Your task to perform on an android device: Show me recent news Image 0: 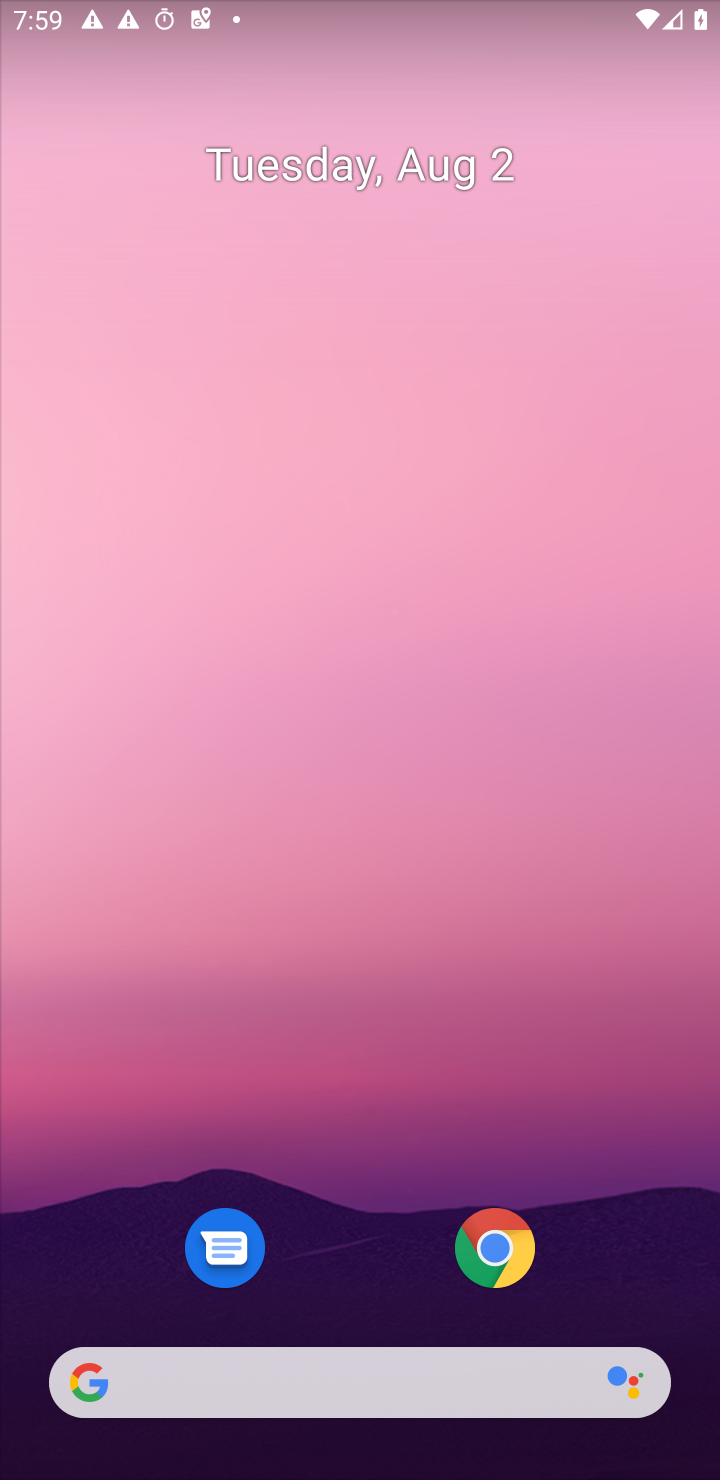
Step 0: drag from (177, 1236) to (242, 482)
Your task to perform on an android device: Show me recent news Image 1: 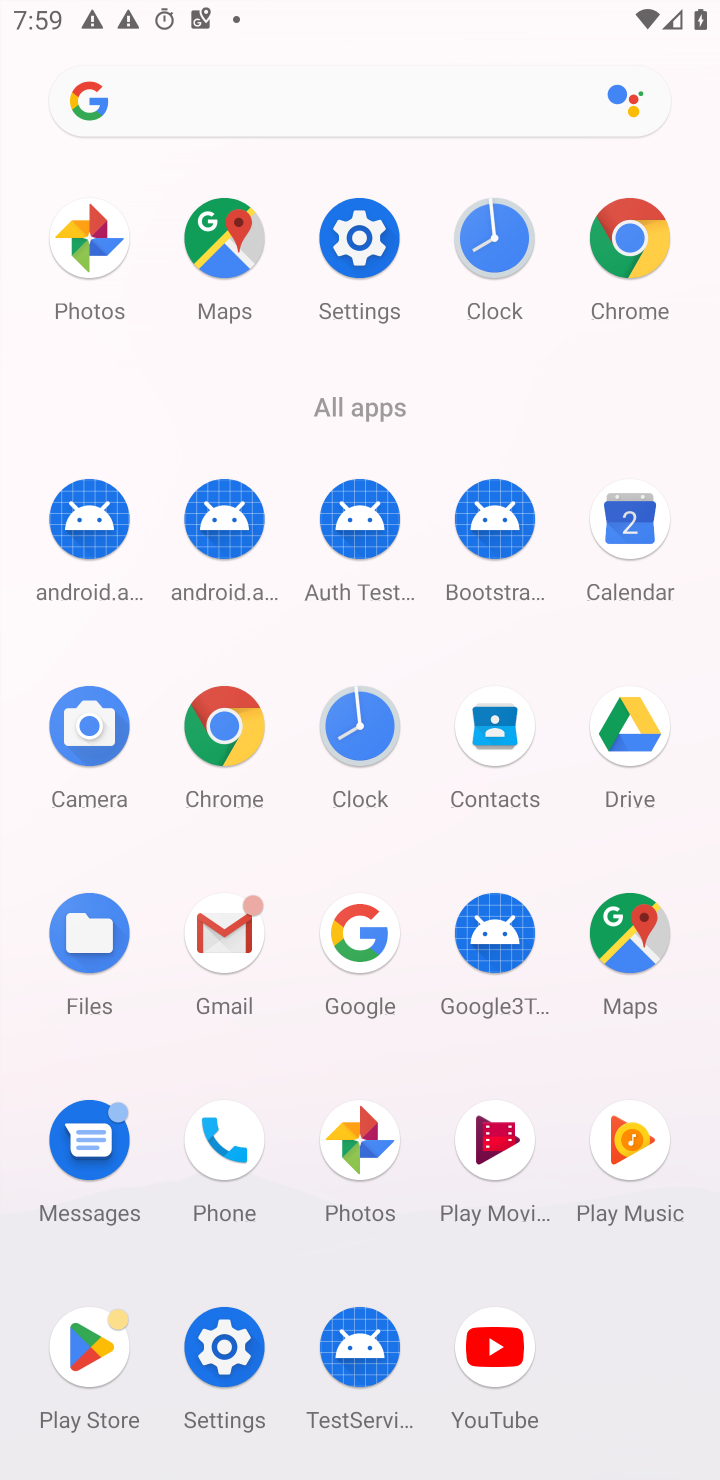
Step 1: drag from (279, 1288) to (317, 431)
Your task to perform on an android device: Show me recent news Image 2: 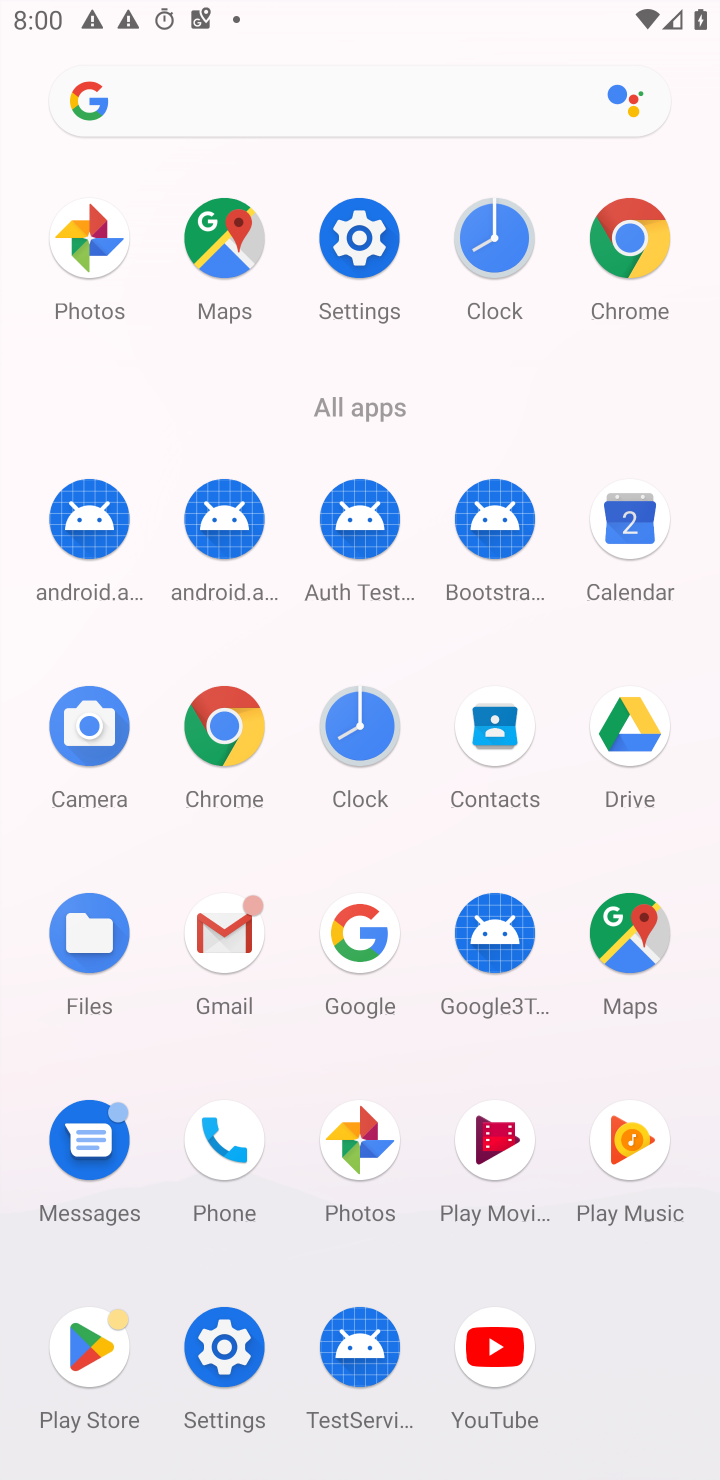
Step 2: click (197, 105)
Your task to perform on an android device: Show me recent news Image 3: 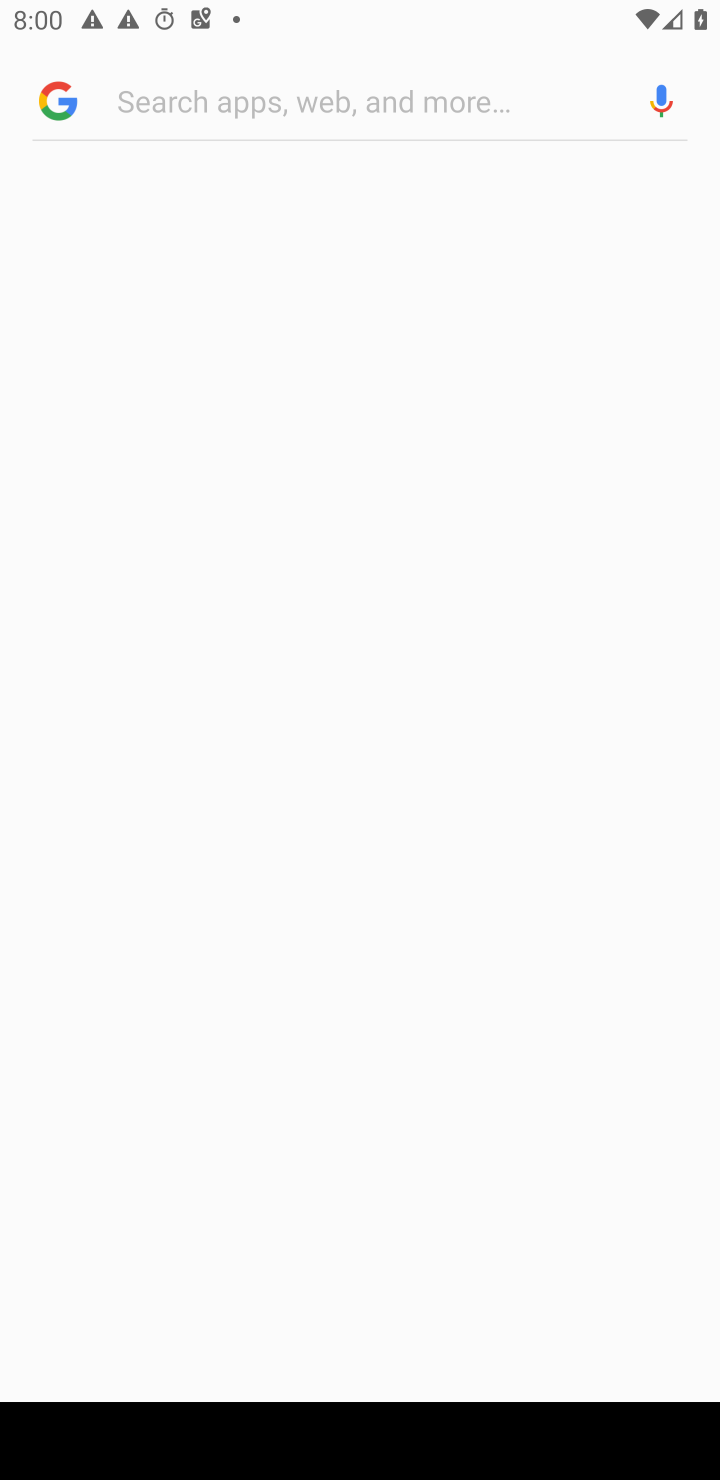
Step 3: type "recent news"
Your task to perform on an android device: Show me recent news Image 4: 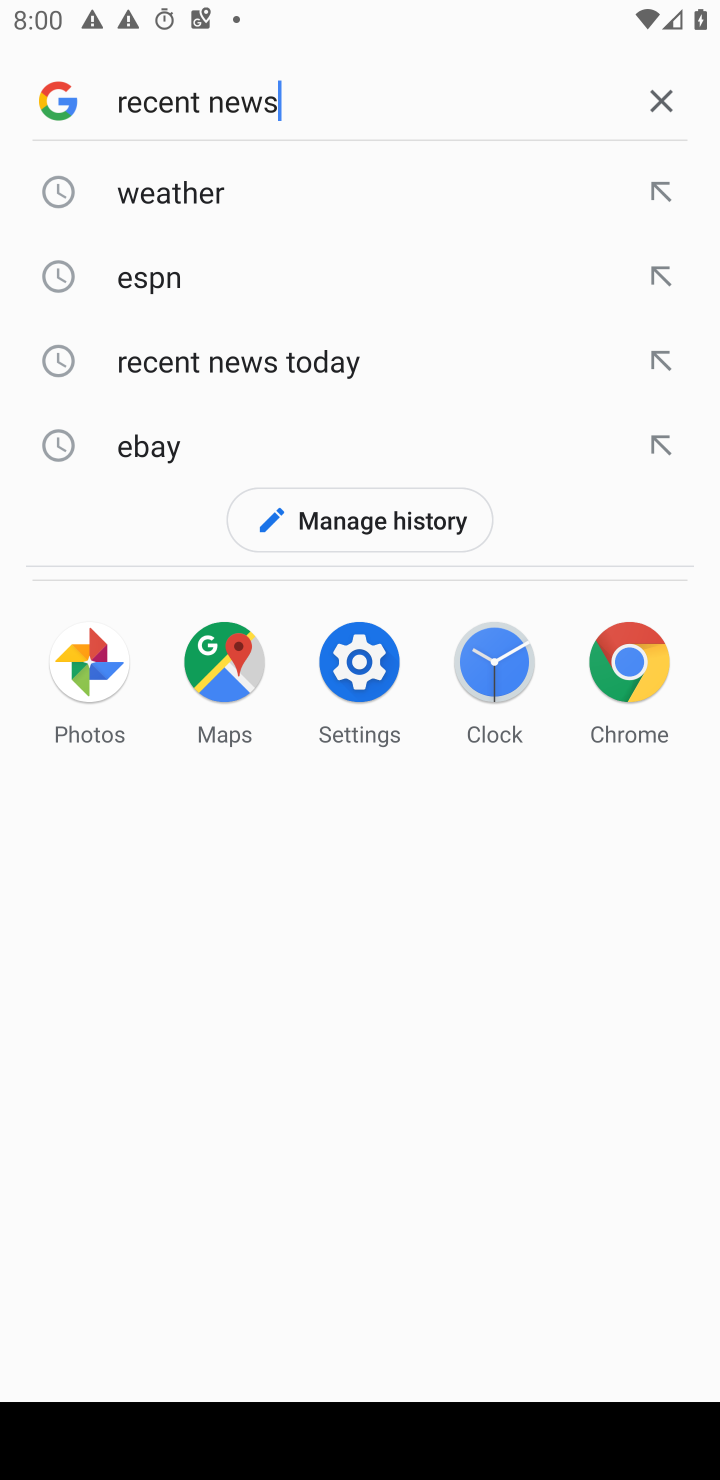
Step 4: type ""
Your task to perform on an android device: Show me recent news Image 5: 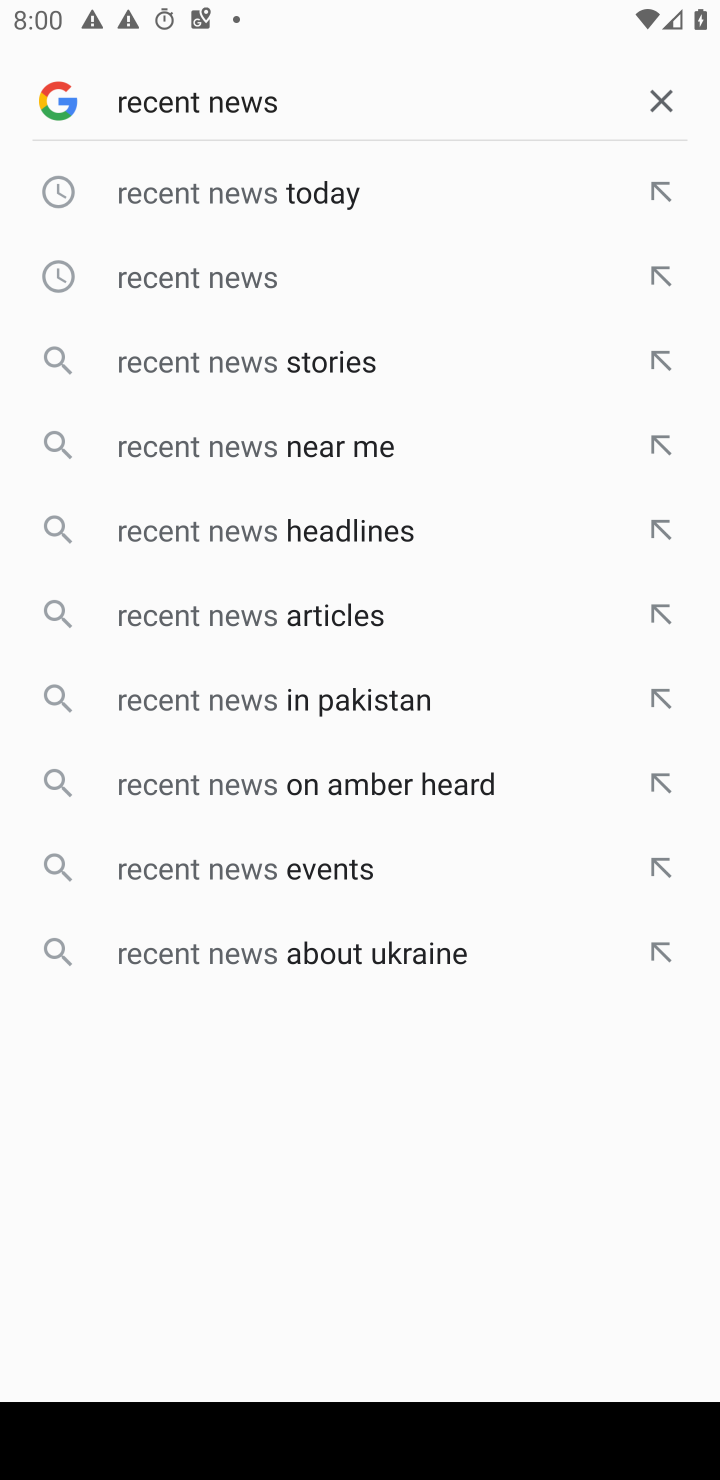
Step 5: click (118, 279)
Your task to perform on an android device: Show me recent news Image 6: 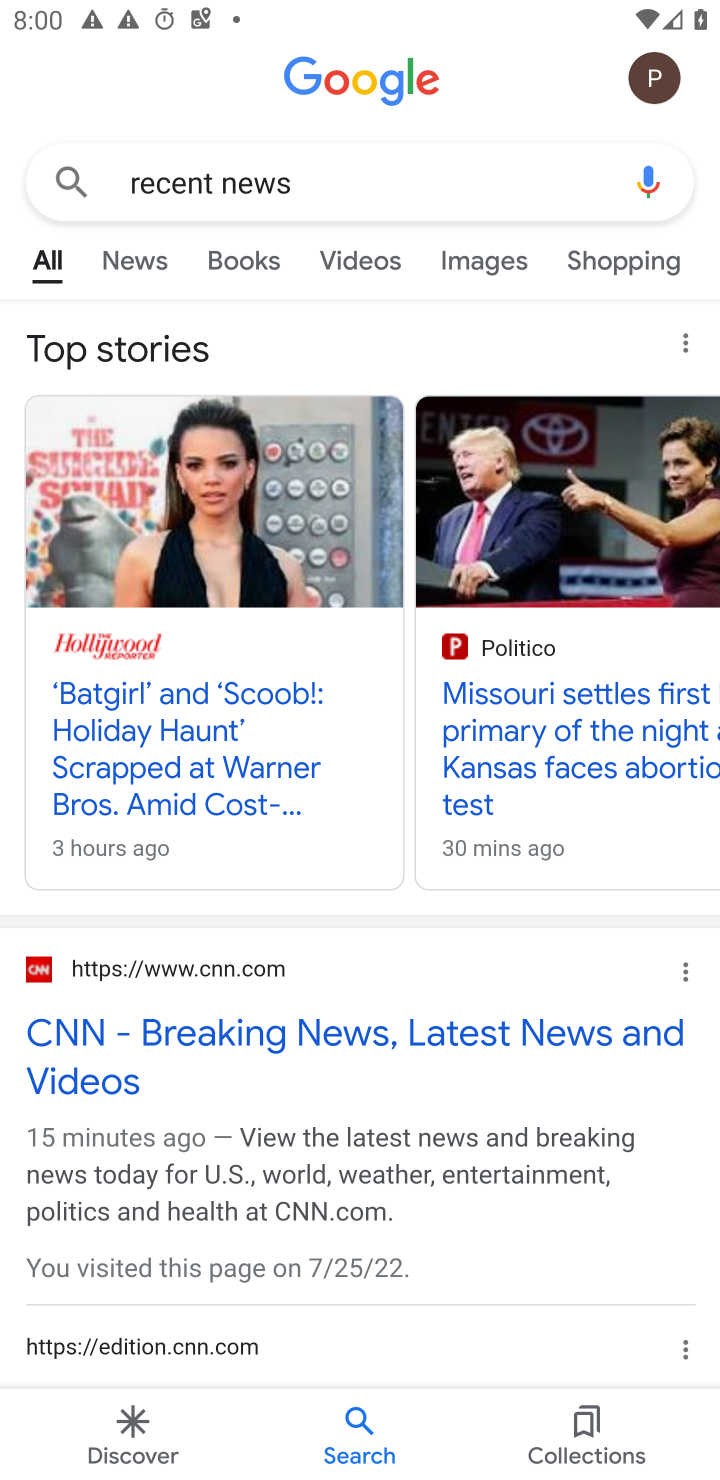
Step 6: drag from (381, 875) to (399, 606)
Your task to perform on an android device: Show me recent news Image 7: 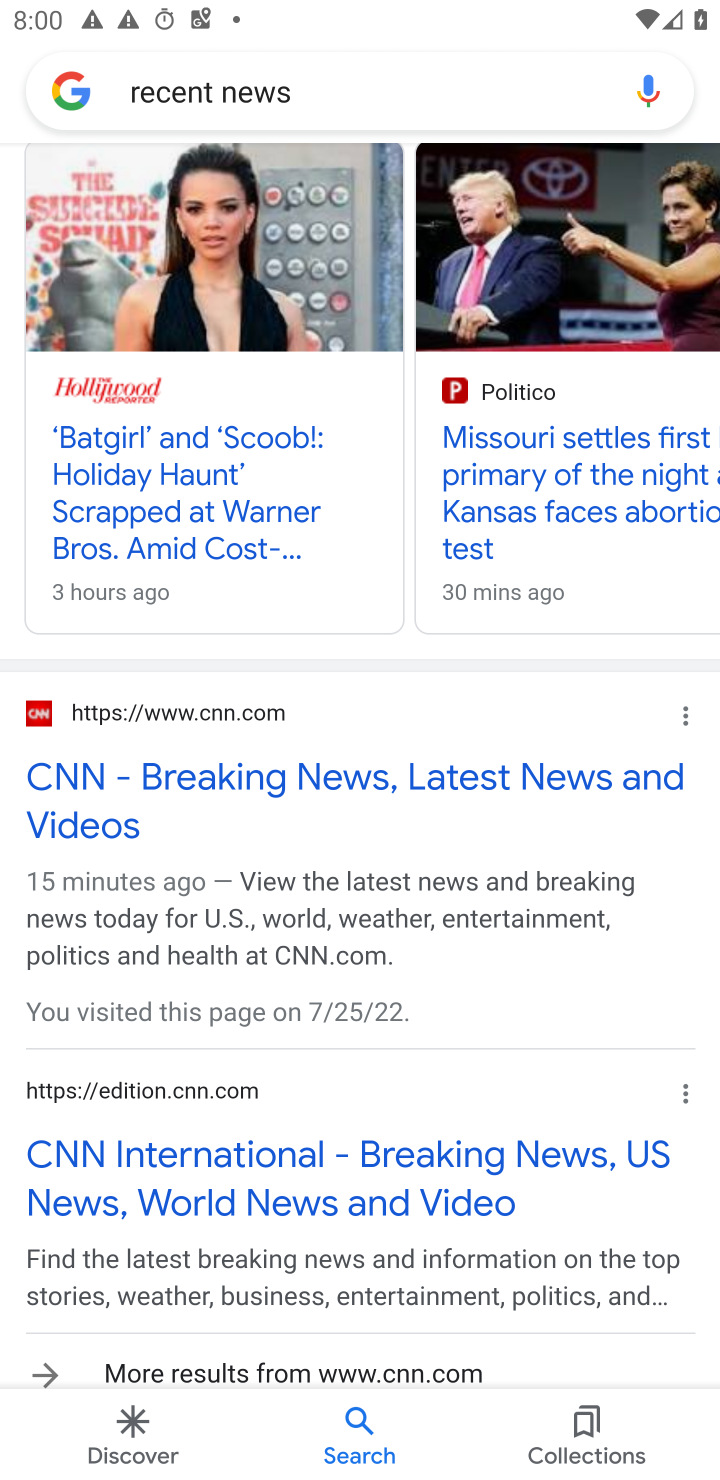
Step 7: drag from (425, 662) to (523, 818)
Your task to perform on an android device: Show me recent news Image 8: 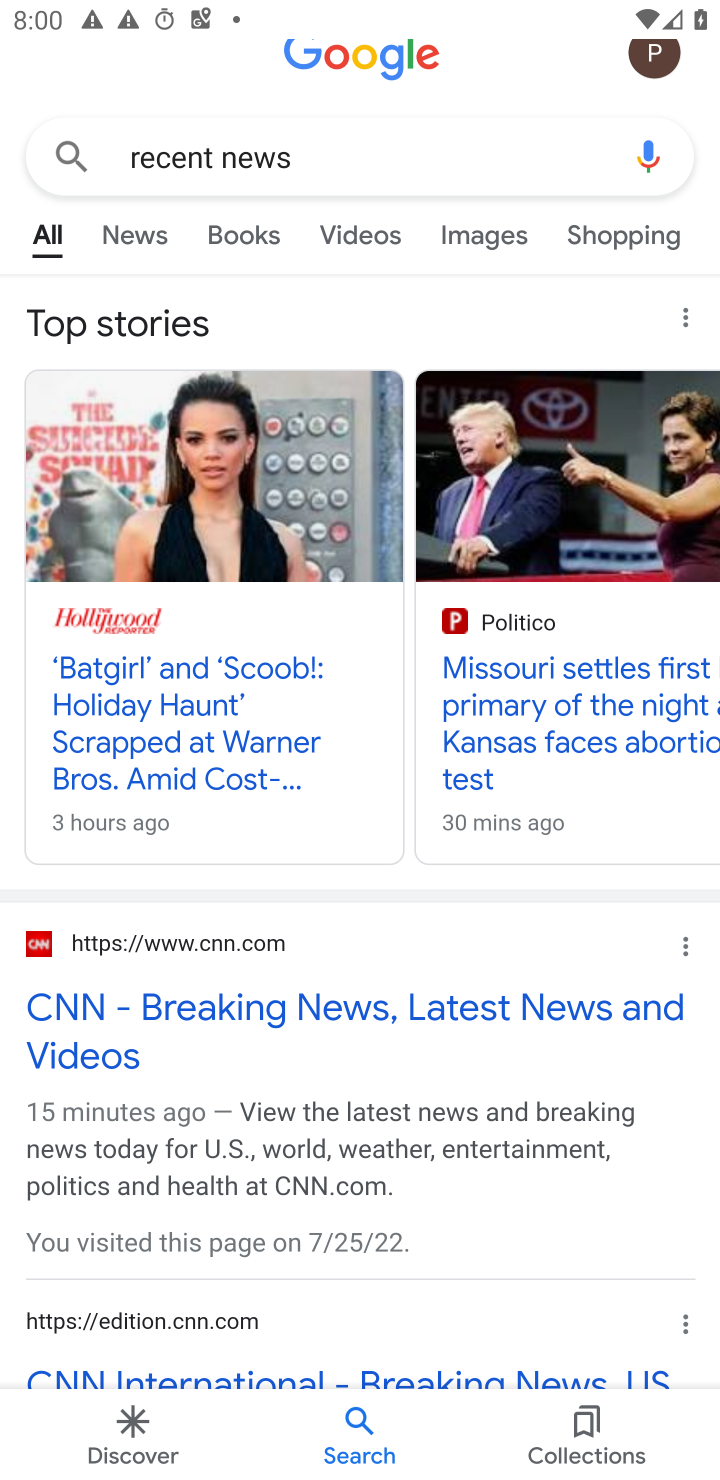
Step 8: click (215, 1013)
Your task to perform on an android device: Show me recent news Image 9: 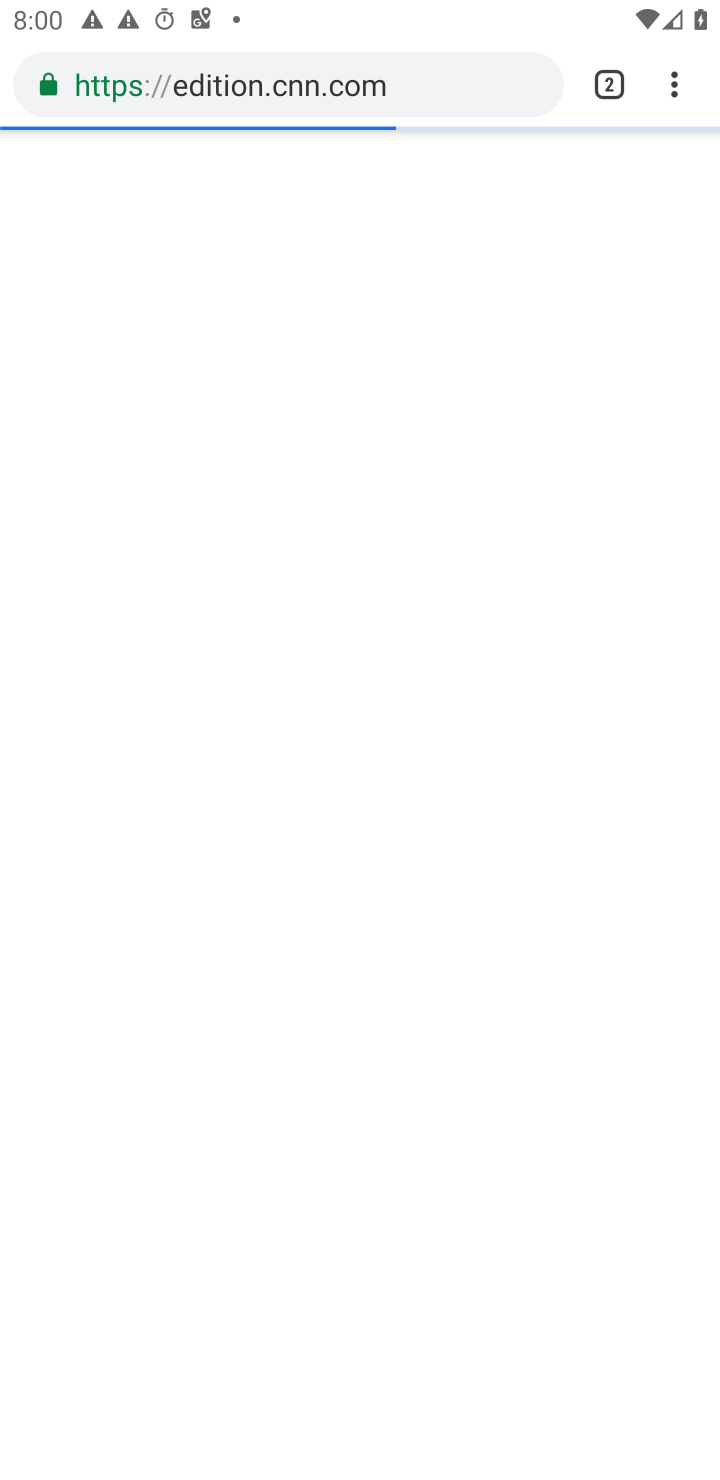
Step 9: task complete